Your task to perform on an android device: Go to wifi settings Image 0: 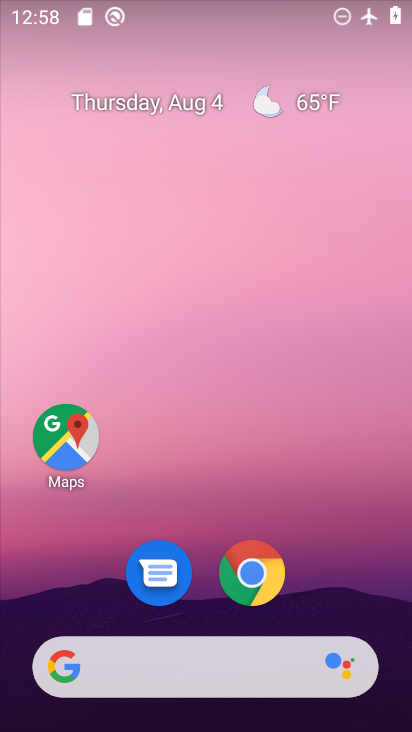
Step 0: drag from (367, 584) to (394, 132)
Your task to perform on an android device: Go to wifi settings Image 1: 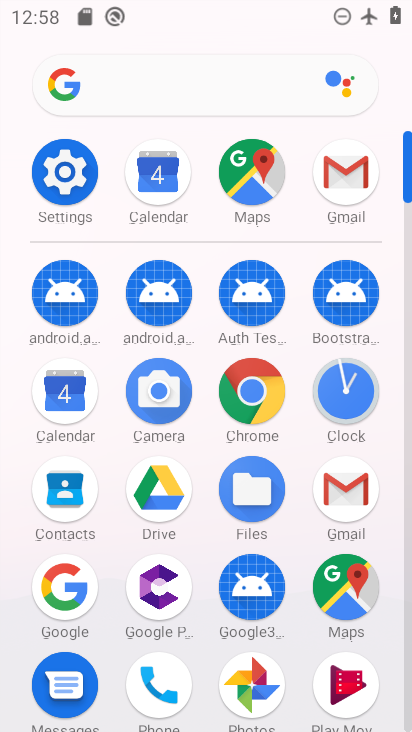
Step 1: click (56, 166)
Your task to perform on an android device: Go to wifi settings Image 2: 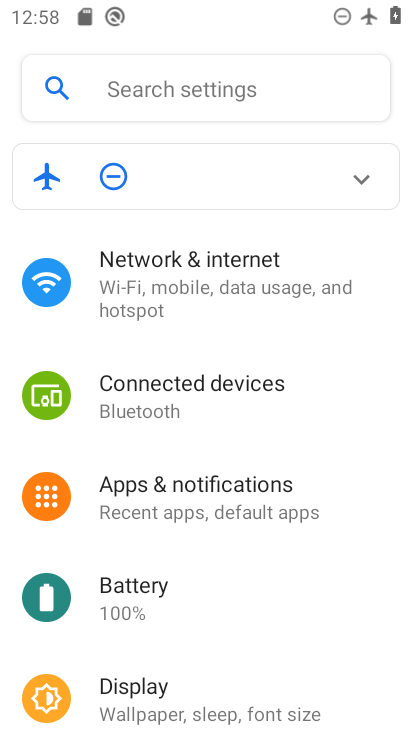
Step 2: click (171, 279)
Your task to perform on an android device: Go to wifi settings Image 3: 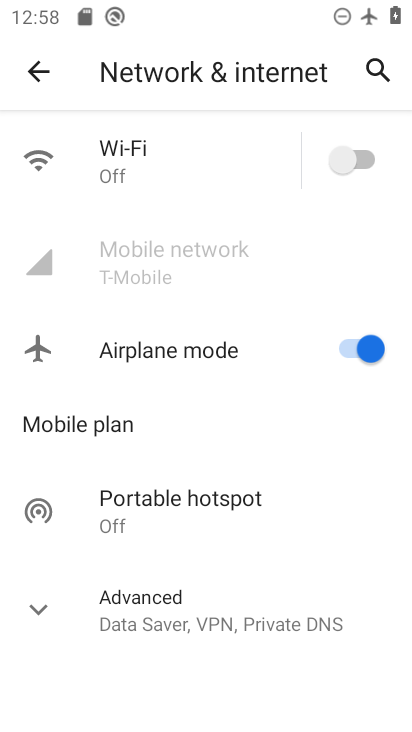
Step 3: click (171, 142)
Your task to perform on an android device: Go to wifi settings Image 4: 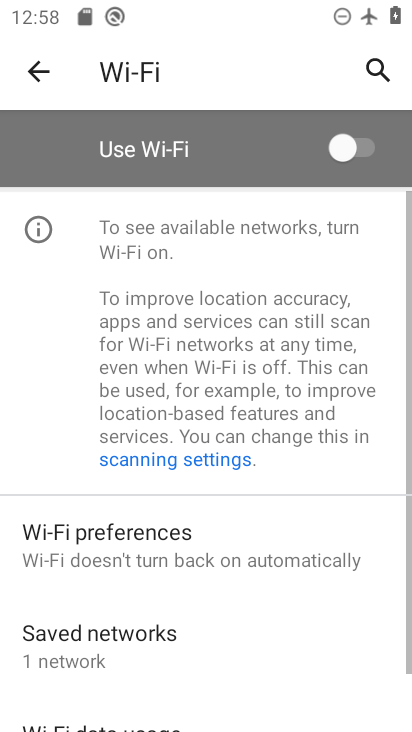
Step 4: click (357, 146)
Your task to perform on an android device: Go to wifi settings Image 5: 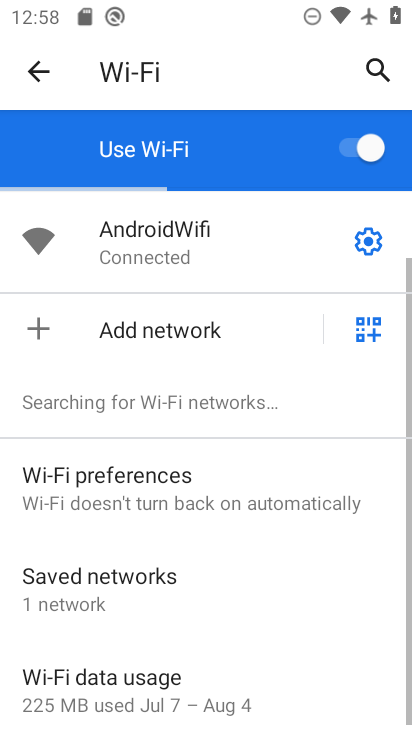
Step 5: click (374, 241)
Your task to perform on an android device: Go to wifi settings Image 6: 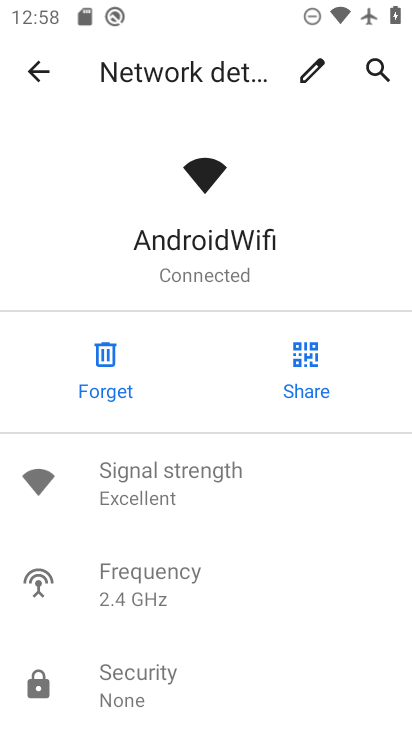
Step 6: task complete